Your task to perform on an android device: install app "Instagram" Image 0: 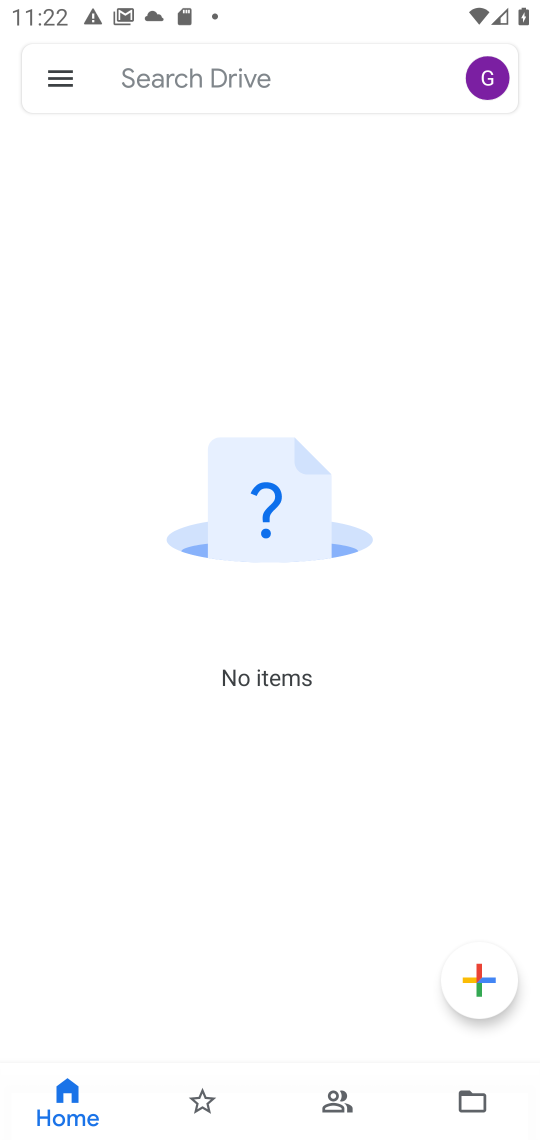
Step 0: press home button
Your task to perform on an android device: install app "Instagram" Image 1: 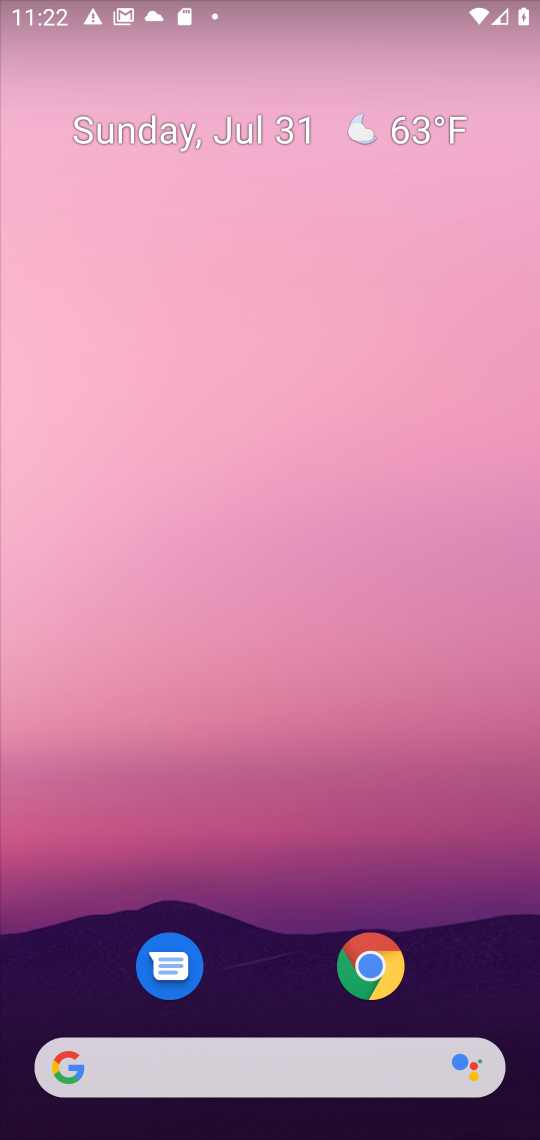
Step 1: drag from (286, 715) to (296, 35)
Your task to perform on an android device: install app "Instagram" Image 2: 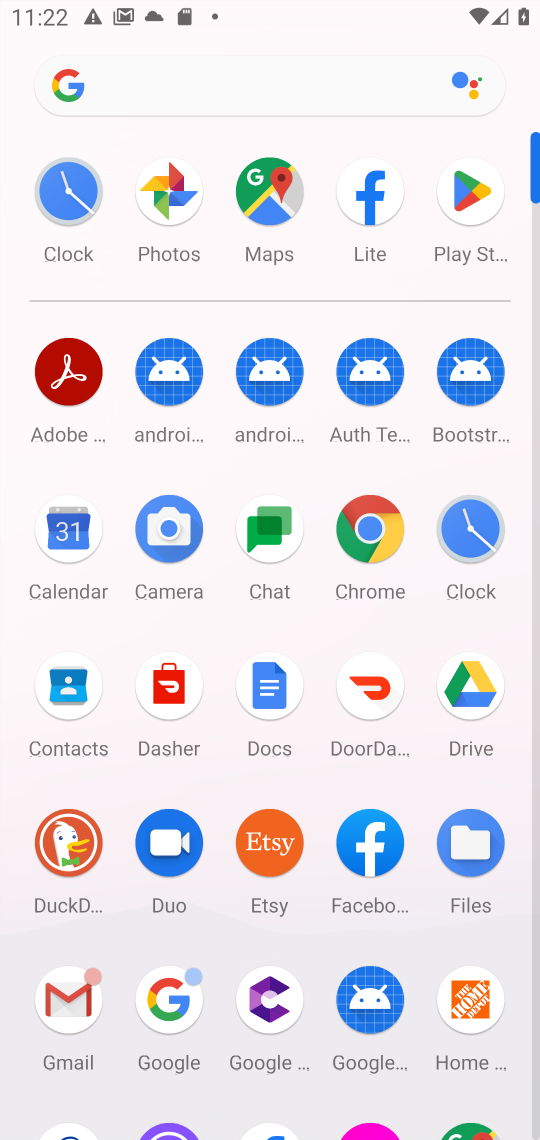
Step 2: click (471, 204)
Your task to perform on an android device: install app "Instagram" Image 3: 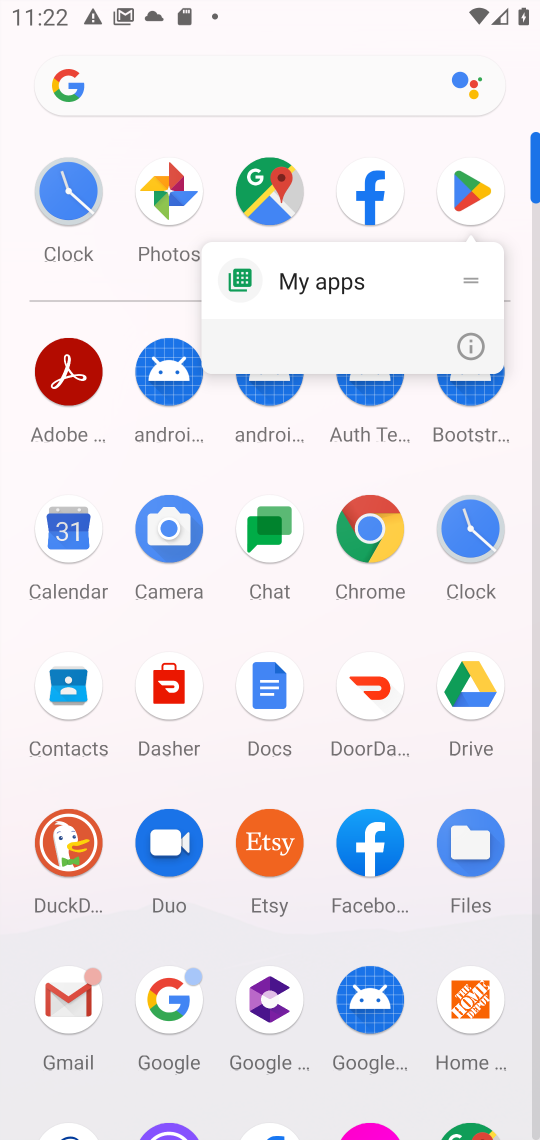
Step 3: click (471, 204)
Your task to perform on an android device: install app "Instagram" Image 4: 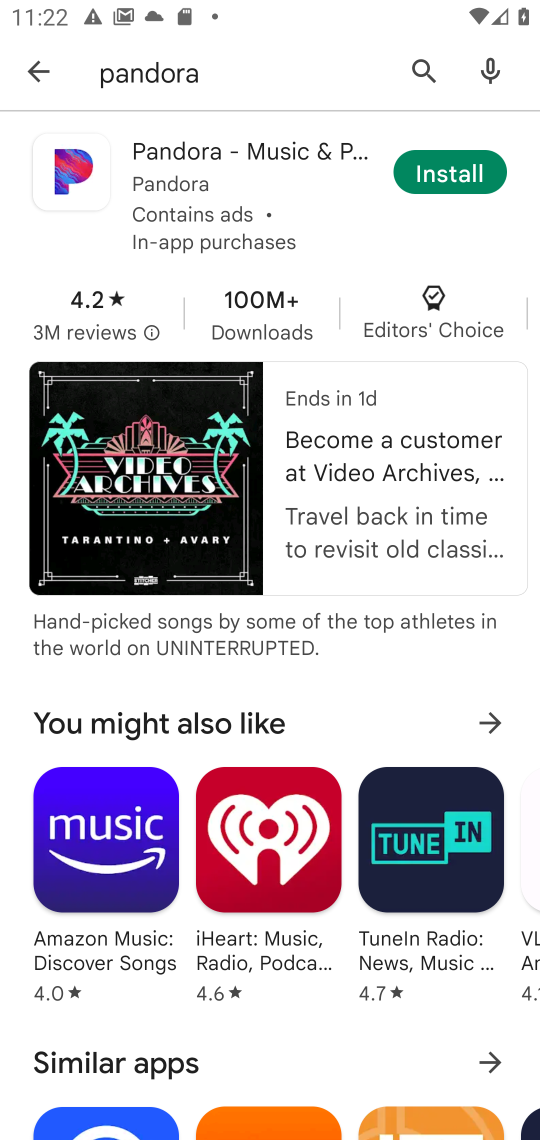
Step 4: click (231, 75)
Your task to perform on an android device: install app "Instagram" Image 5: 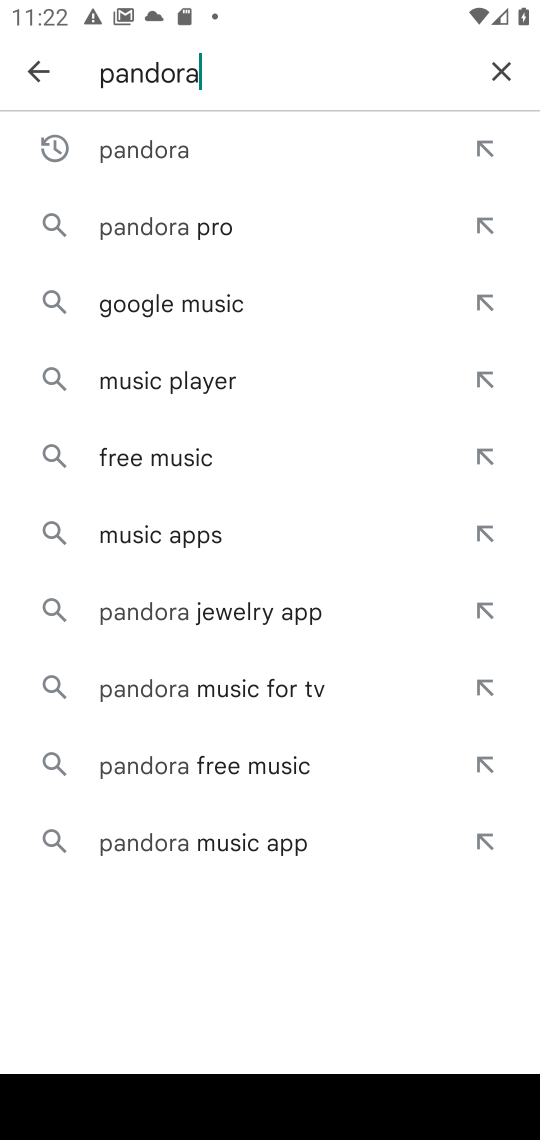
Step 5: click (504, 61)
Your task to perform on an android device: install app "Instagram" Image 6: 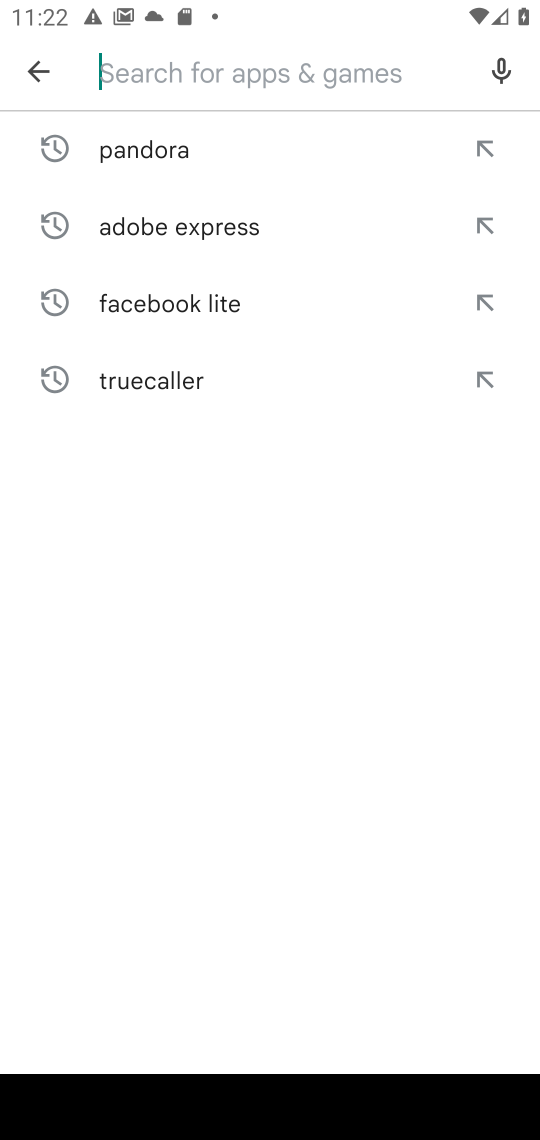
Step 6: type "Instagram"
Your task to perform on an android device: install app "Instagram" Image 7: 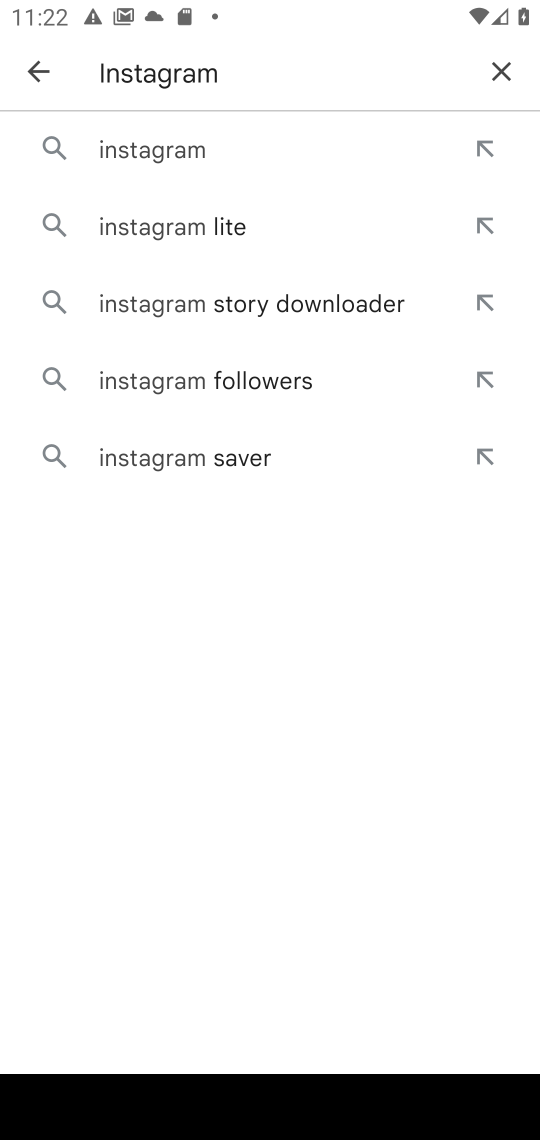
Step 7: click (154, 142)
Your task to perform on an android device: install app "Instagram" Image 8: 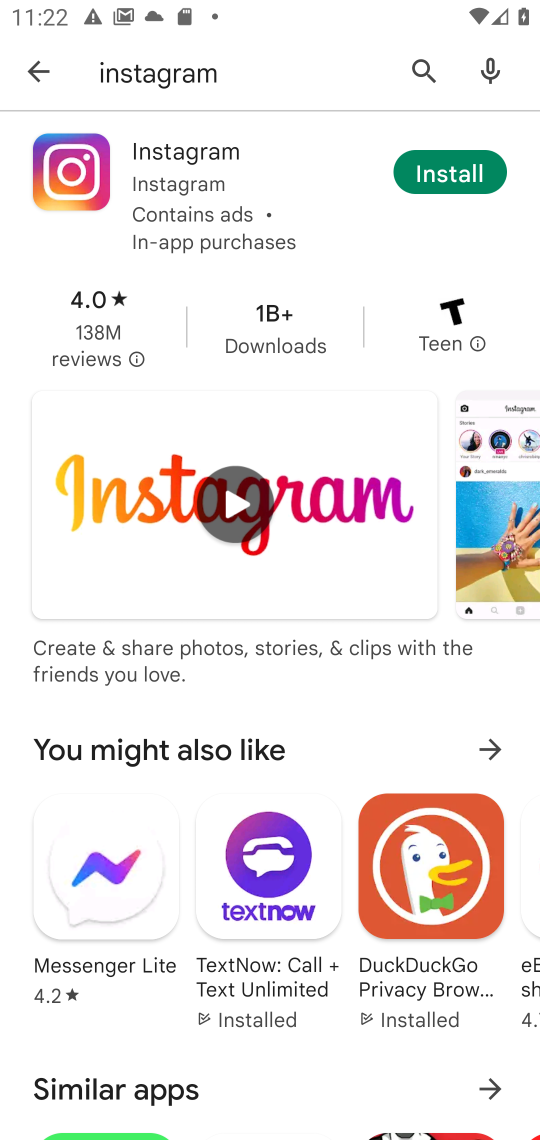
Step 8: click (439, 169)
Your task to perform on an android device: install app "Instagram" Image 9: 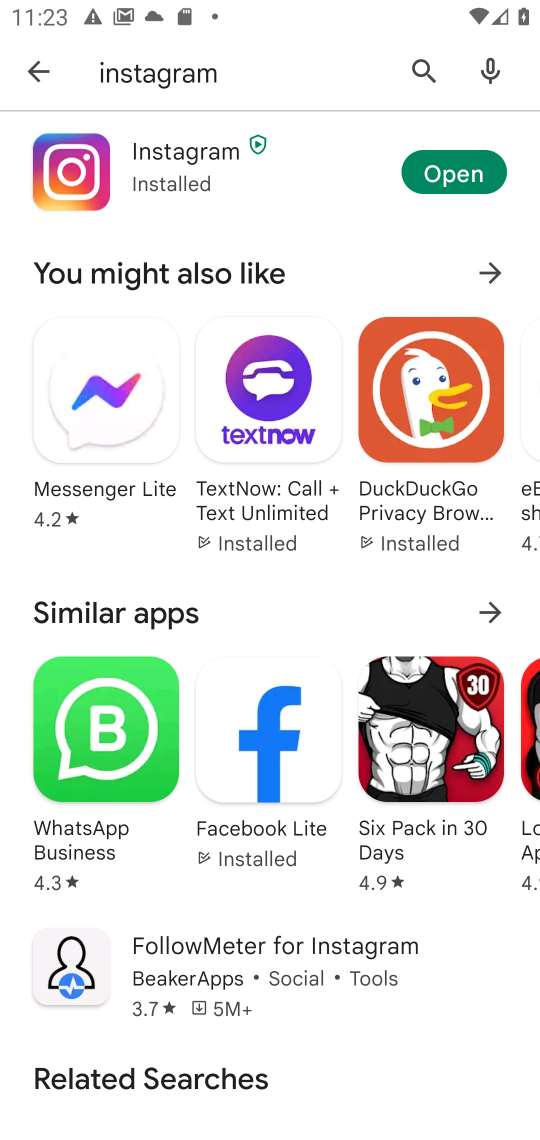
Step 9: task complete